Your task to perform on an android device: turn notification dots off Image 0: 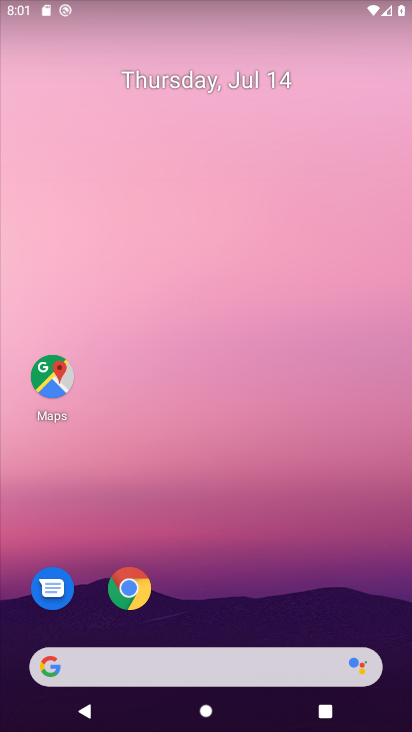
Step 0: drag from (327, 617) to (388, 150)
Your task to perform on an android device: turn notification dots off Image 1: 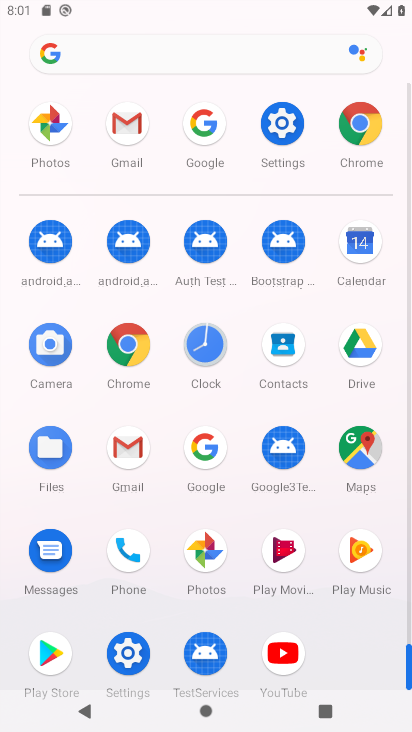
Step 1: click (281, 132)
Your task to perform on an android device: turn notification dots off Image 2: 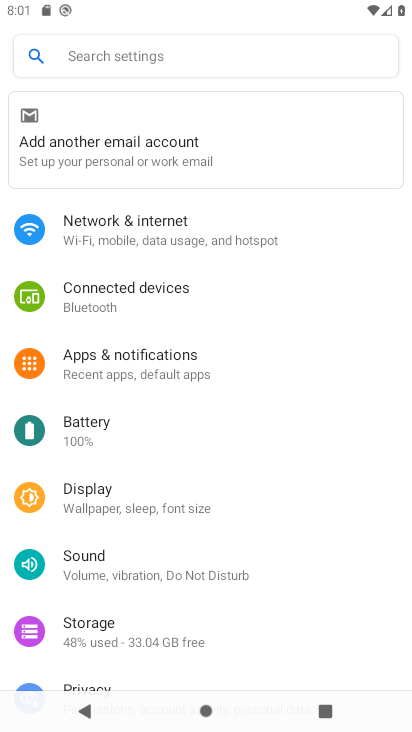
Step 2: drag from (319, 398) to (336, 326)
Your task to perform on an android device: turn notification dots off Image 3: 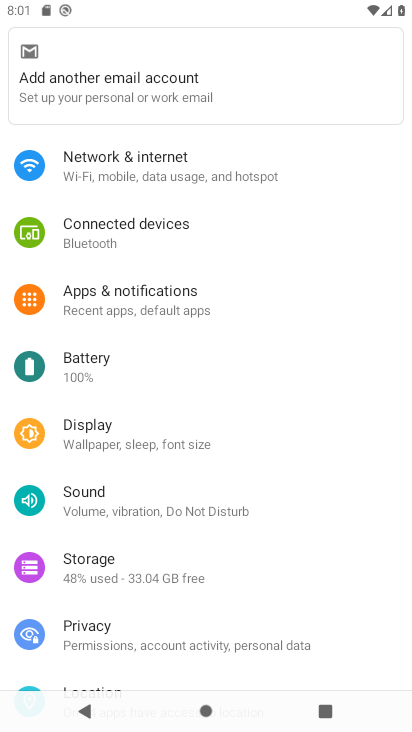
Step 3: drag from (319, 422) to (339, 328)
Your task to perform on an android device: turn notification dots off Image 4: 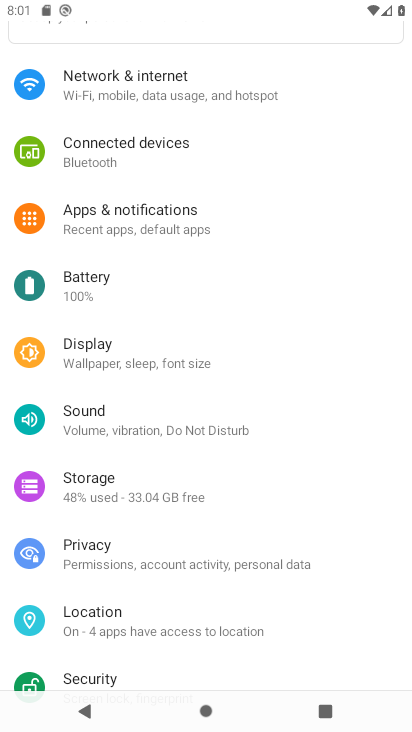
Step 4: drag from (346, 416) to (351, 295)
Your task to perform on an android device: turn notification dots off Image 5: 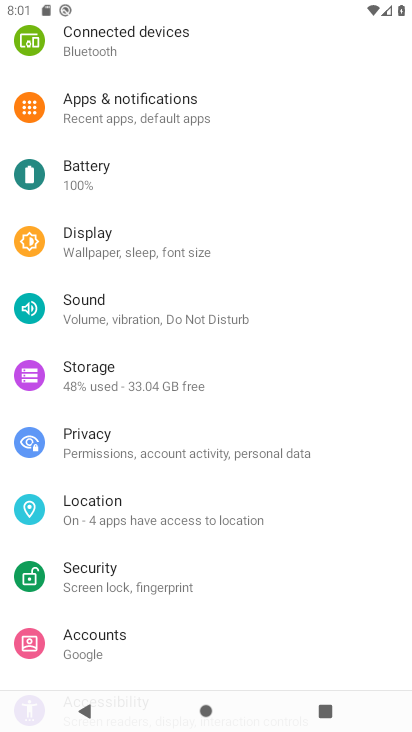
Step 5: drag from (356, 436) to (354, 279)
Your task to perform on an android device: turn notification dots off Image 6: 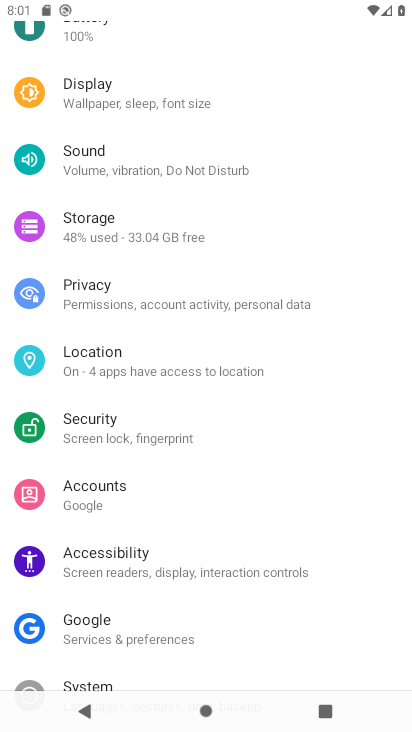
Step 6: drag from (344, 422) to (366, 242)
Your task to perform on an android device: turn notification dots off Image 7: 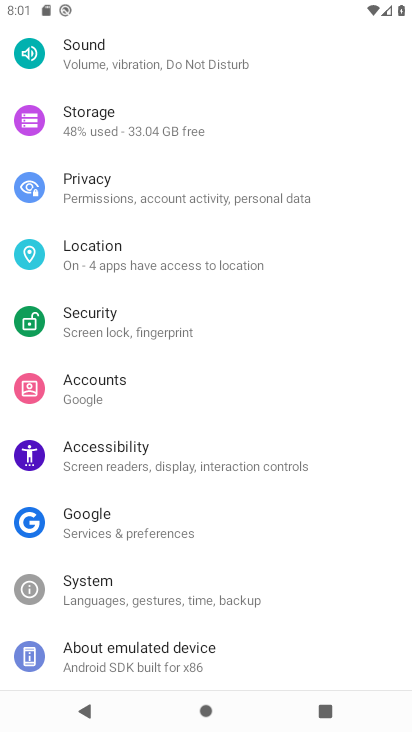
Step 7: drag from (355, 335) to (353, 433)
Your task to perform on an android device: turn notification dots off Image 8: 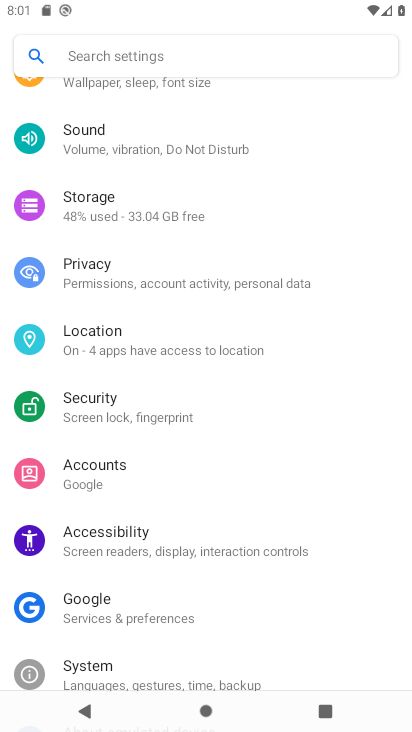
Step 8: drag from (327, 252) to (335, 398)
Your task to perform on an android device: turn notification dots off Image 9: 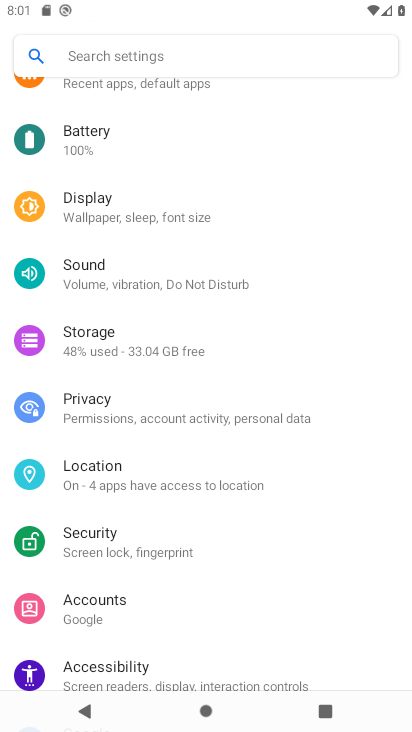
Step 9: drag from (350, 268) to (356, 390)
Your task to perform on an android device: turn notification dots off Image 10: 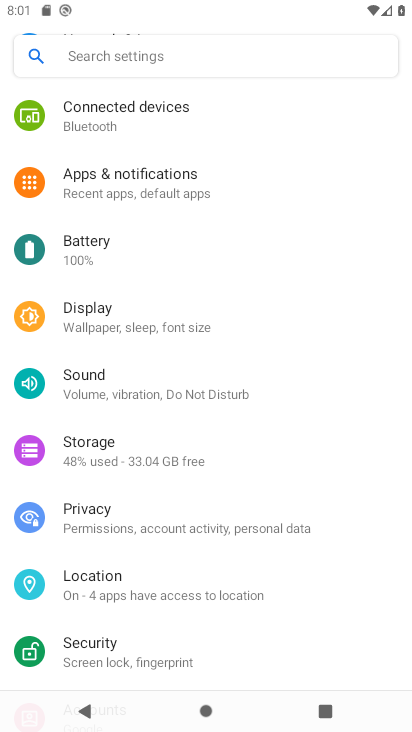
Step 10: drag from (340, 216) to (357, 376)
Your task to perform on an android device: turn notification dots off Image 11: 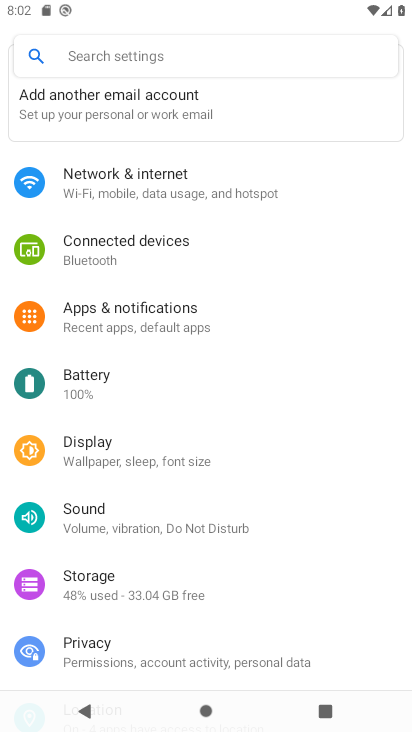
Step 11: drag from (344, 246) to (349, 381)
Your task to perform on an android device: turn notification dots off Image 12: 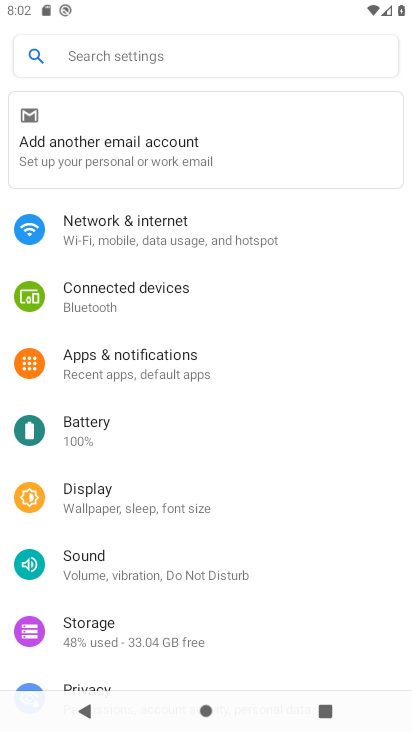
Step 12: drag from (343, 440) to (346, 357)
Your task to perform on an android device: turn notification dots off Image 13: 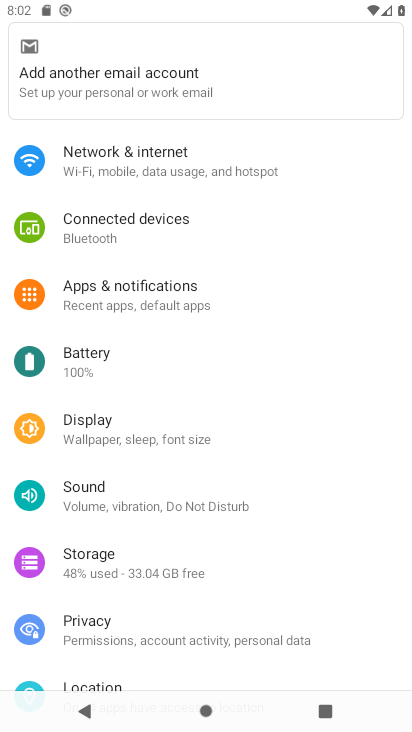
Step 13: click (207, 298)
Your task to perform on an android device: turn notification dots off Image 14: 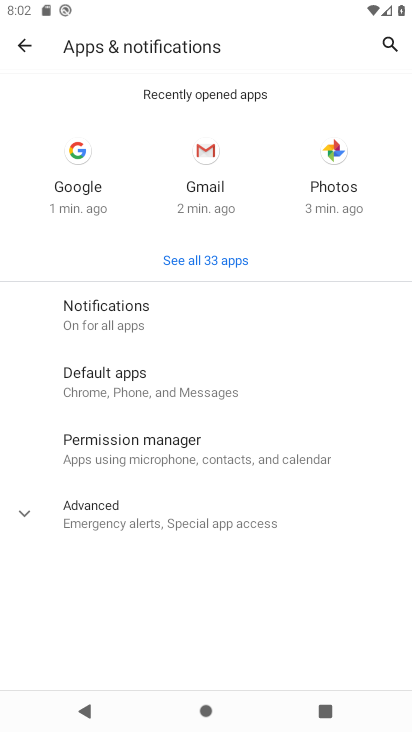
Step 14: click (161, 329)
Your task to perform on an android device: turn notification dots off Image 15: 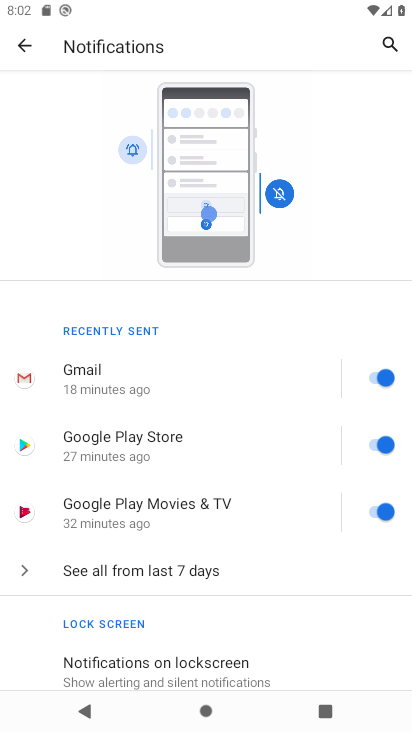
Step 15: drag from (265, 458) to (268, 366)
Your task to perform on an android device: turn notification dots off Image 16: 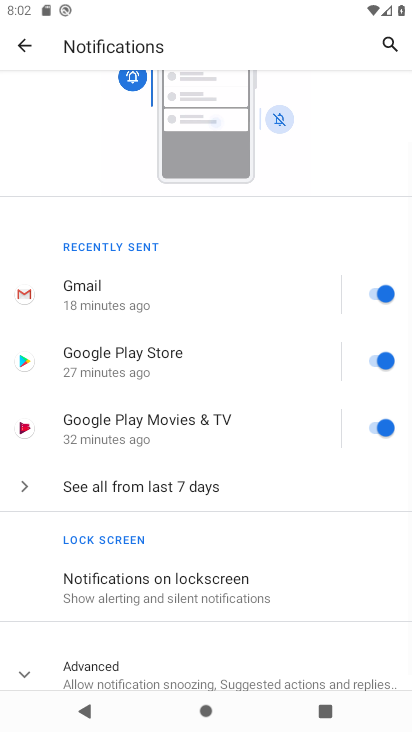
Step 16: drag from (262, 466) to (281, 370)
Your task to perform on an android device: turn notification dots off Image 17: 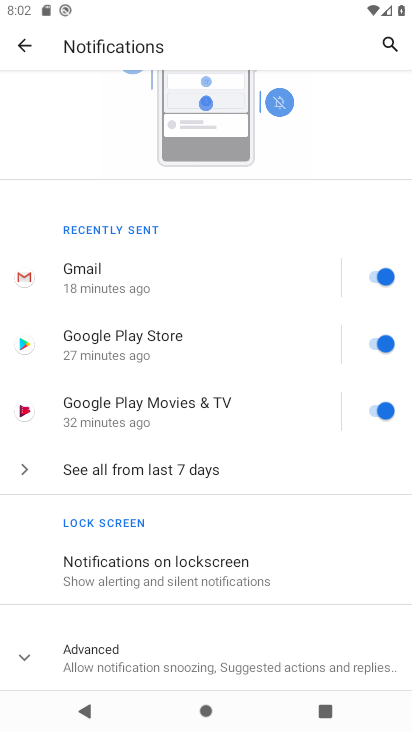
Step 17: click (315, 661)
Your task to perform on an android device: turn notification dots off Image 18: 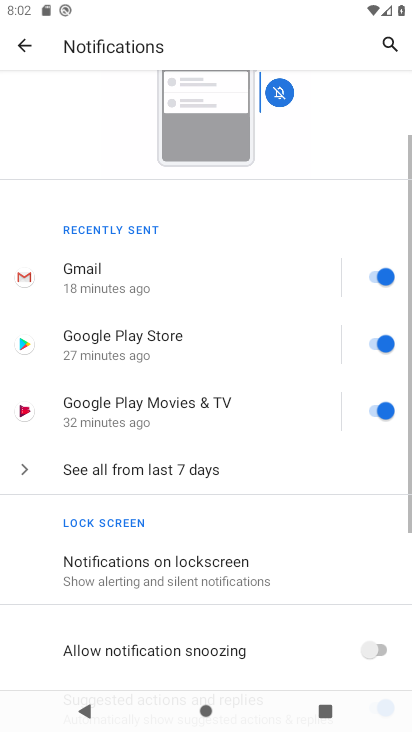
Step 18: task complete